Your task to perform on an android device: read, delete, or share a saved page in the chrome app Image 0: 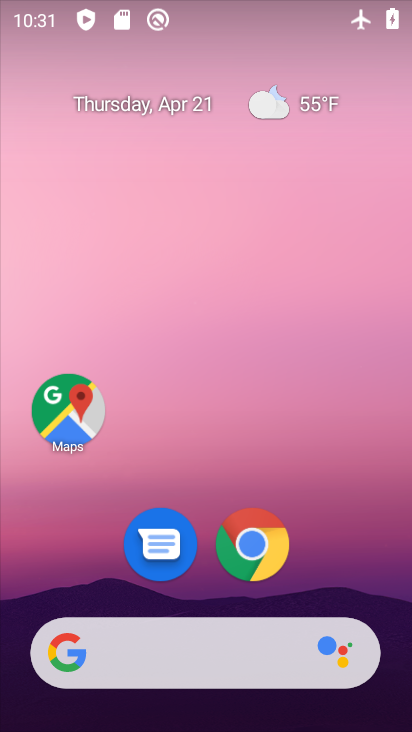
Step 0: drag from (323, 559) to (293, 18)
Your task to perform on an android device: read, delete, or share a saved page in the chrome app Image 1: 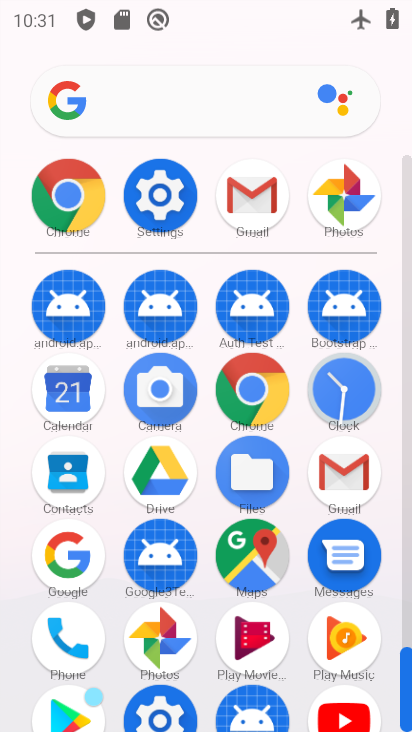
Step 1: click (68, 193)
Your task to perform on an android device: read, delete, or share a saved page in the chrome app Image 2: 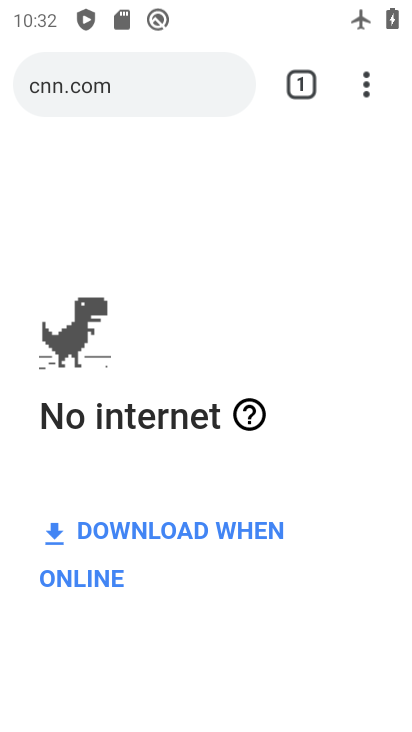
Step 2: task complete